Your task to perform on an android device: open a bookmark in the chrome app Image 0: 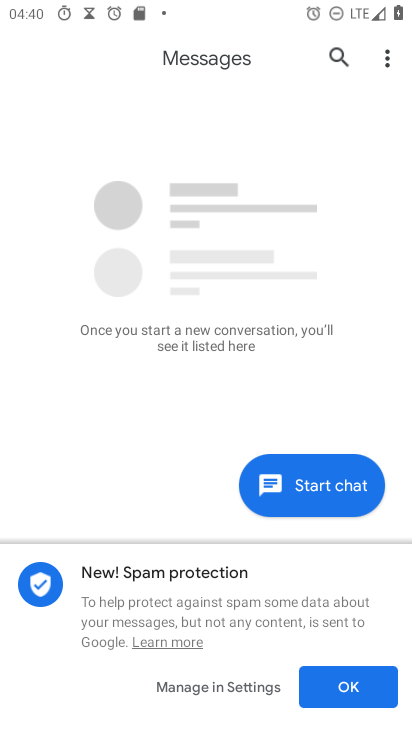
Step 0: press home button
Your task to perform on an android device: open a bookmark in the chrome app Image 1: 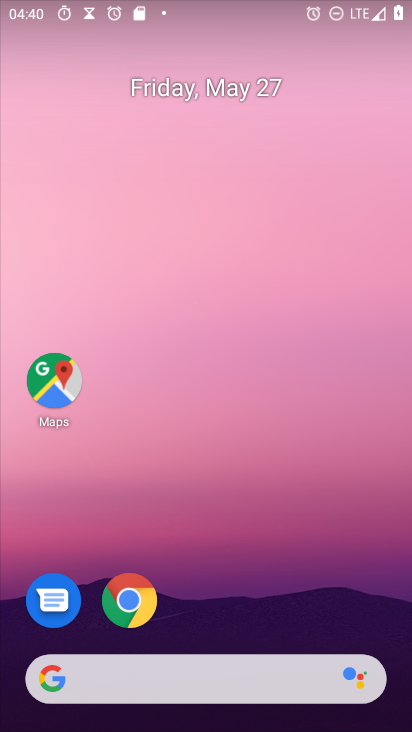
Step 1: click (136, 601)
Your task to perform on an android device: open a bookmark in the chrome app Image 2: 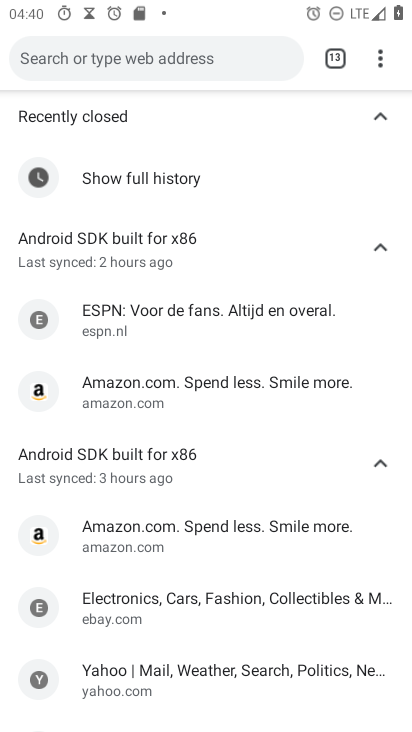
Step 2: click (383, 66)
Your task to perform on an android device: open a bookmark in the chrome app Image 3: 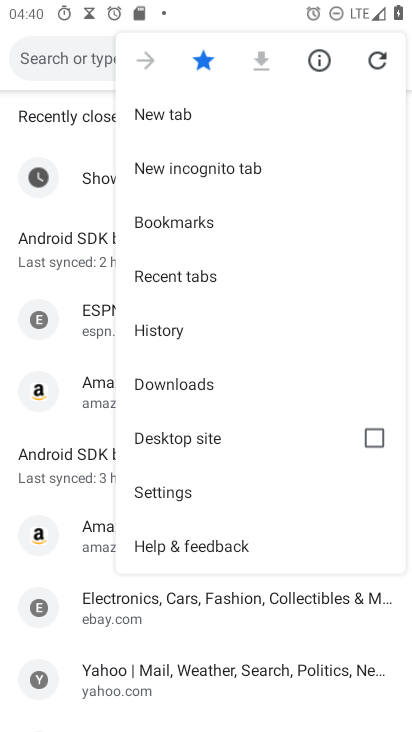
Step 3: click (180, 222)
Your task to perform on an android device: open a bookmark in the chrome app Image 4: 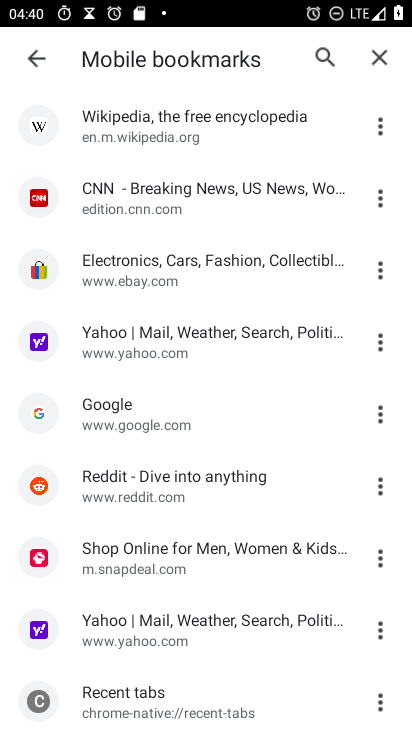
Step 4: click (158, 340)
Your task to perform on an android device: open a bookmark in the chrome app Image 5: 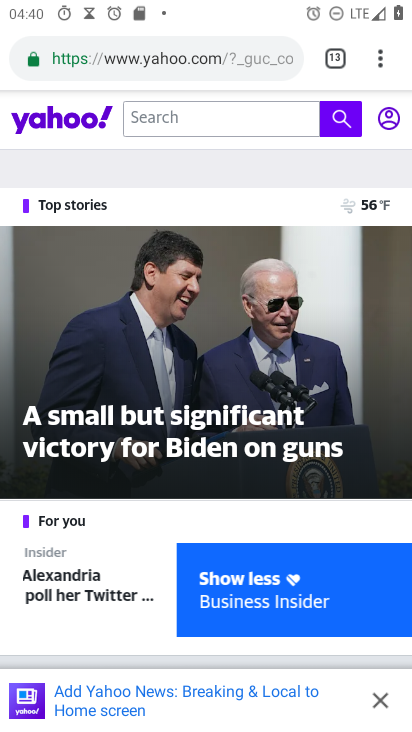
Step 5: task complete